Your task to perform on an android device: Go to Yahoo.com Image 0: 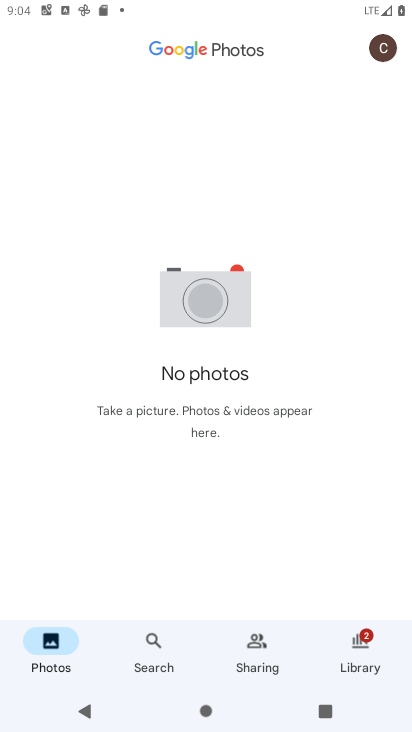
Step 0: press home button
Your task to perform on an android device: Go to Yahoo.com Image 1: 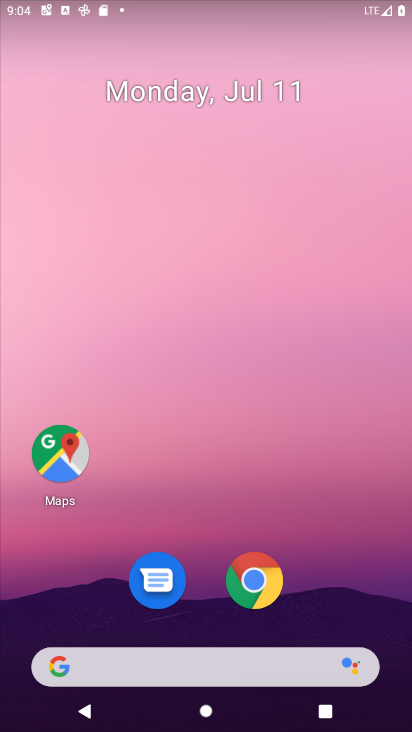
Step 1: click (254, 666)
Your task to perform on an android device: Go to Yahoo.com Image 2: 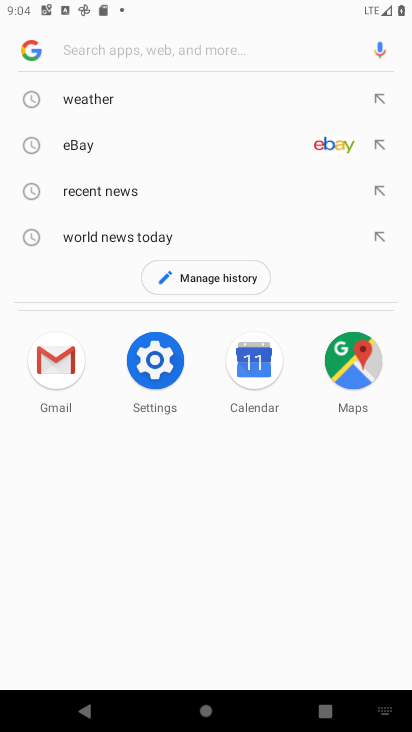
Step 2: type "yahoo.com"
Your task to perform on an android device: Go to Yahoo.com Image 3: 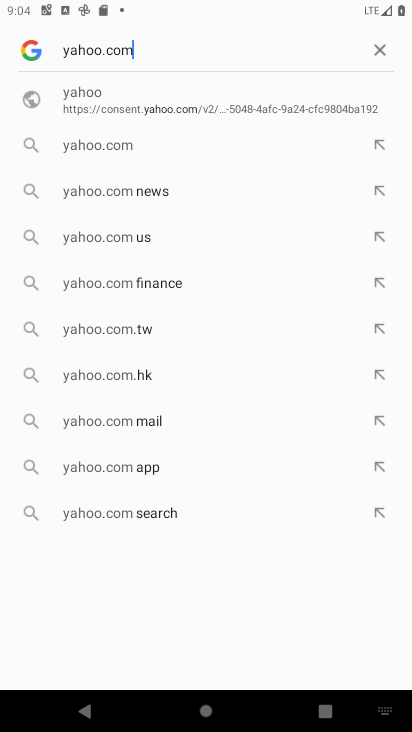
Step 3: click (113, 137)
Your task to perform on an android device: Go to Yahoo.com Image 4: 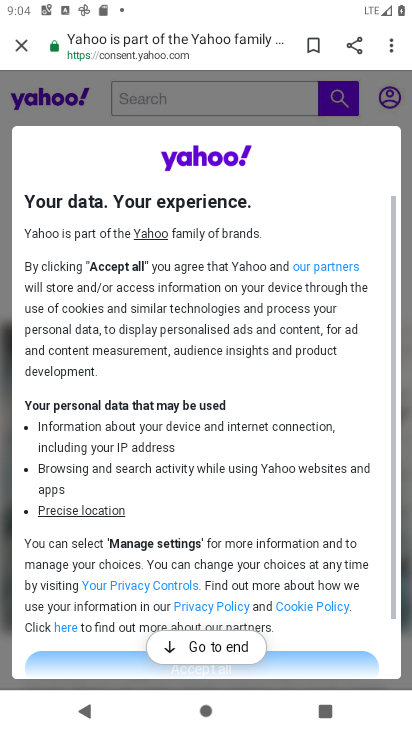
Step 4: task complete